Your task to perform on an android device: open app "Adobe Acrobat Reader: Edit PDF" Image 0: 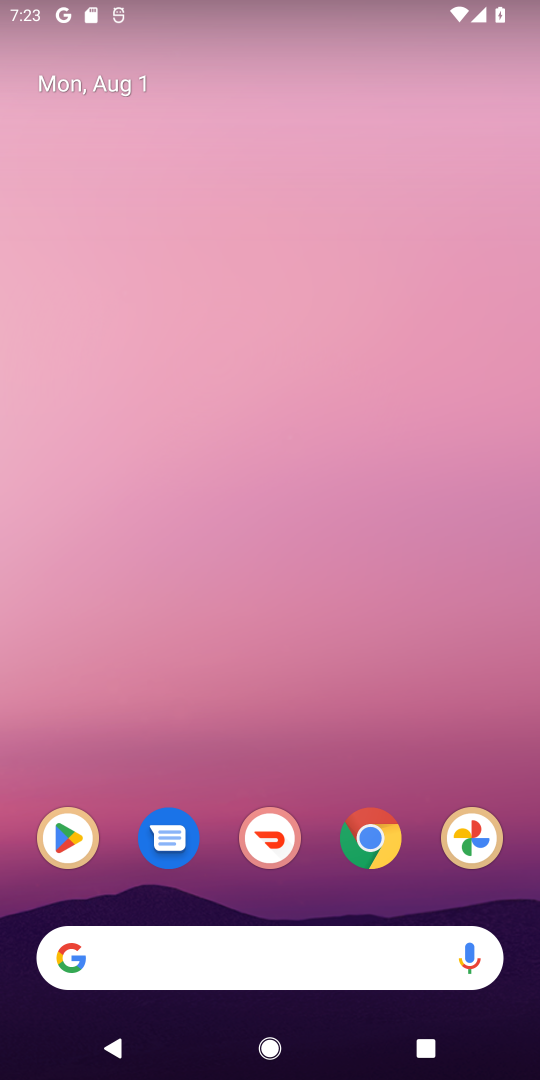
Step 0: drag from (207, 960) to (143, 25)
Your task to perform on an android device: open app "Adobe Acrobat Reader: Edit PDF" Image 1: 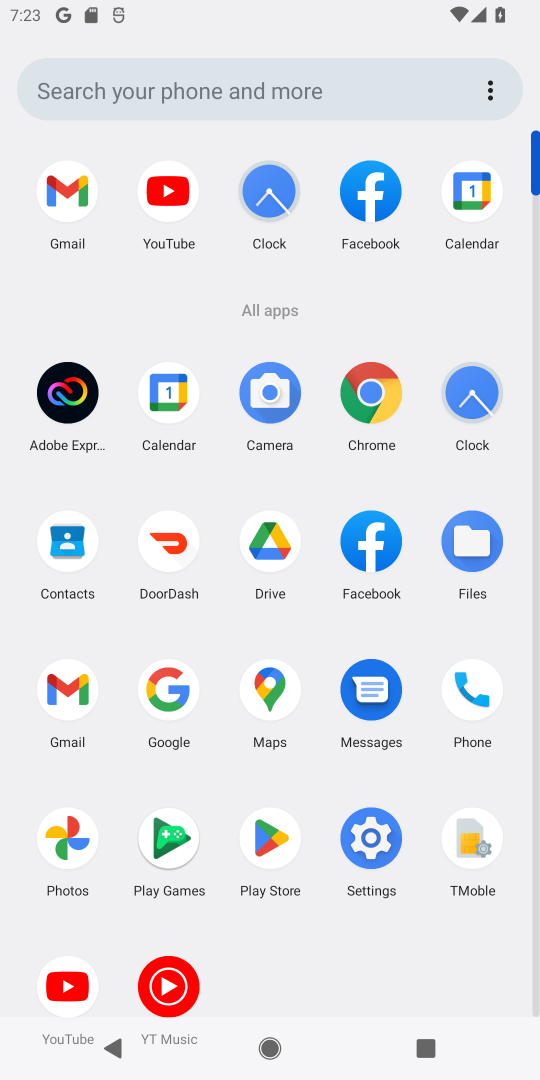
Step 1: click (258, 847)
Your task to perform on an android device: open app "Adobe Acrobat Reader: Edit PDF" Image 2: 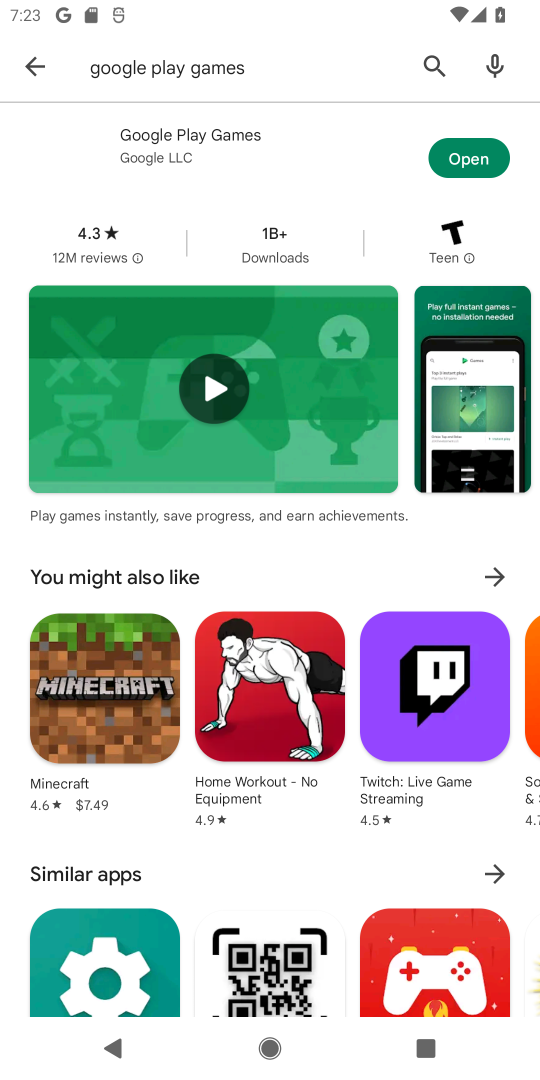
Step 2: click (32, 83)
Your task to perform on an android device: open app "Adobe Acrobat Reader: Edit PDF" Image 3: 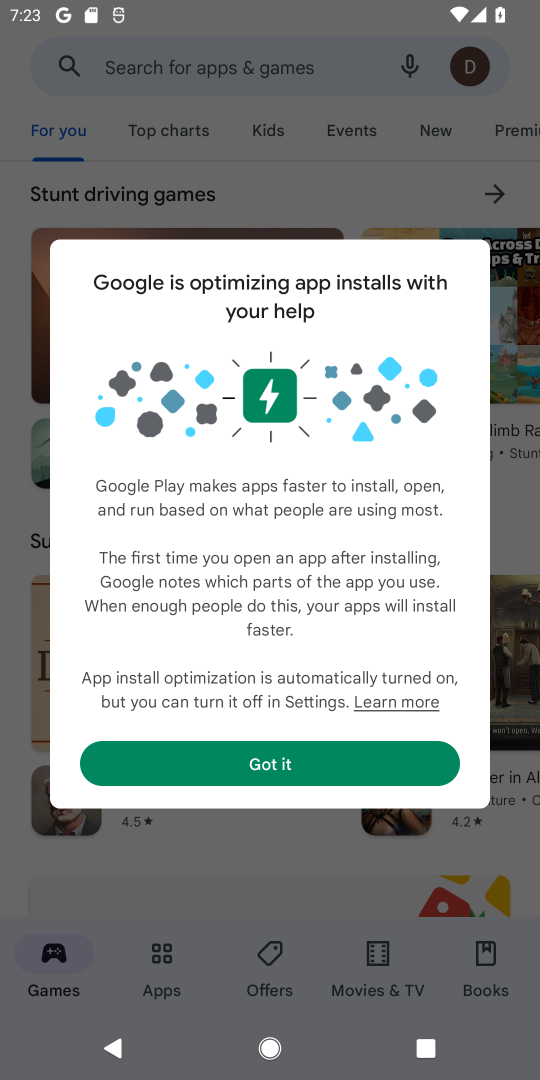
Step 3: click (324, 770)
Your task to perform on an android device: open app "Adobe Acrobat Reader: Edit PDF" Image 4: 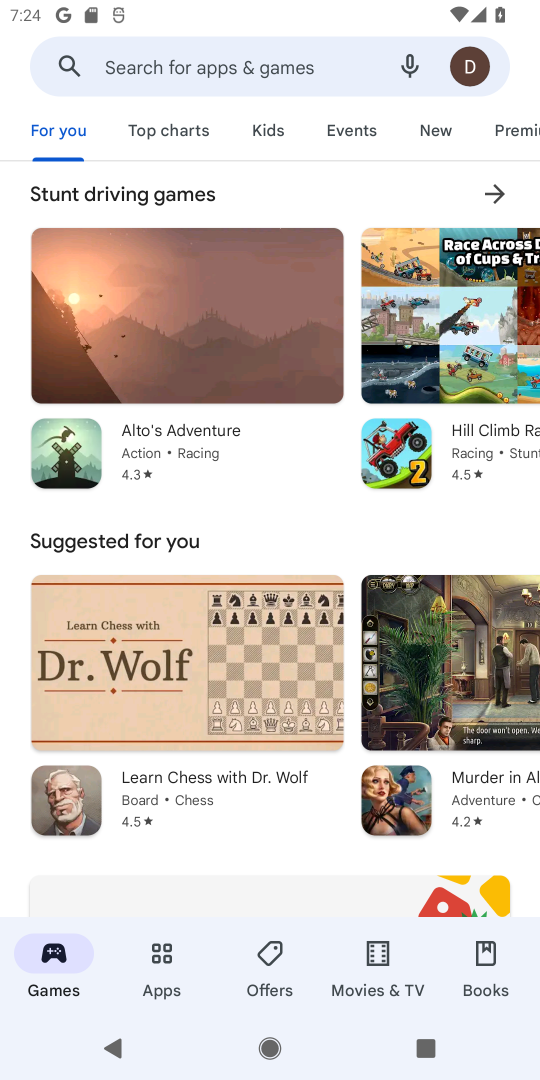
Step 4: click (205, 74)
Your task to perform on an android device: open app "Adobe Acrobat Reader: Edit PDF" Image 5: 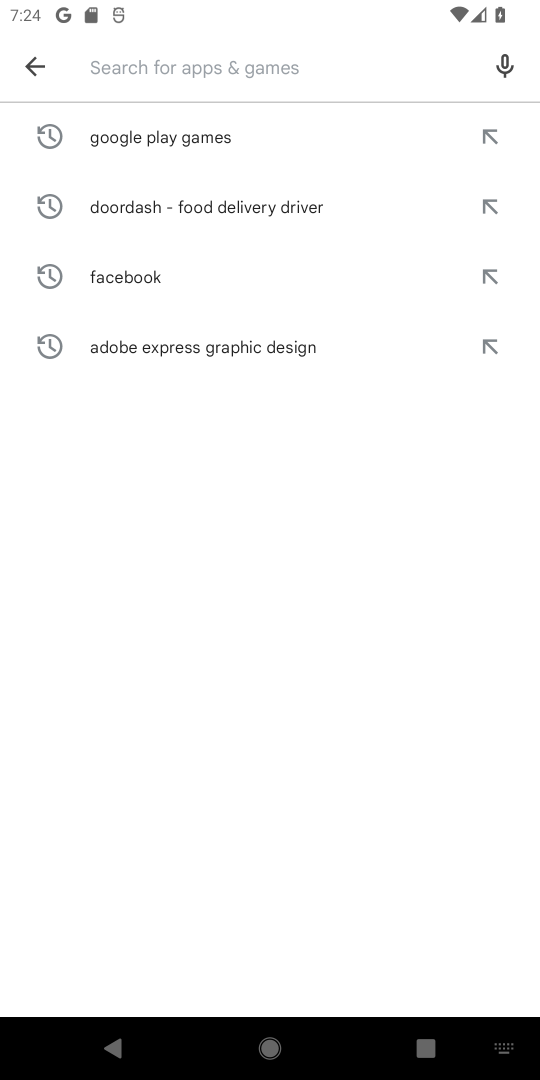
Step 5: type "Adobe Acrobat Reader"
Your task to perform on an android device: open app "Adobe Acrobat Reader: Edit PDF" Image 6: 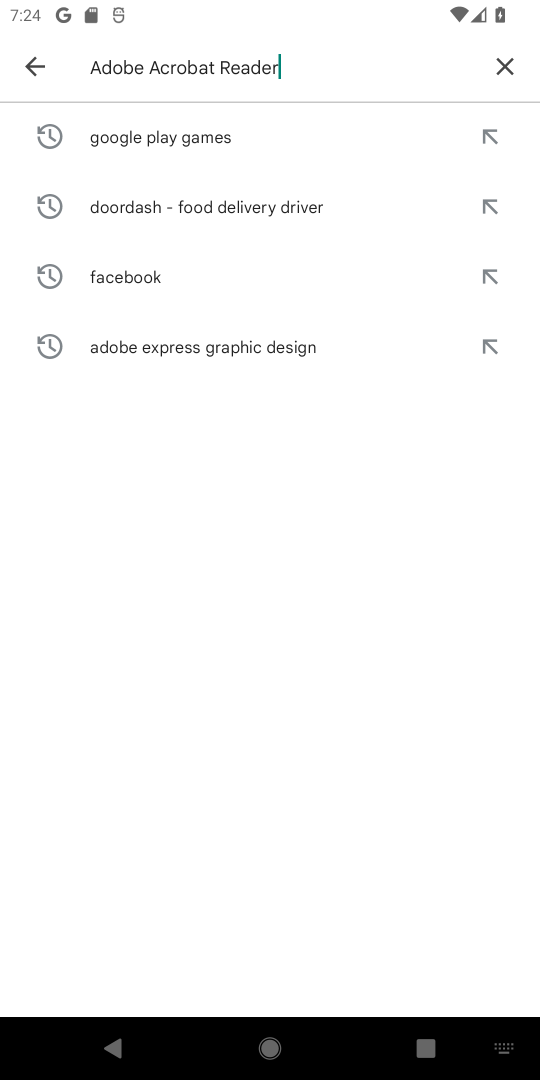
Step 6: type ""
Your task to perform on an android device: open app "Adobe Acrobat Reader: Edit PDF" Image 7: 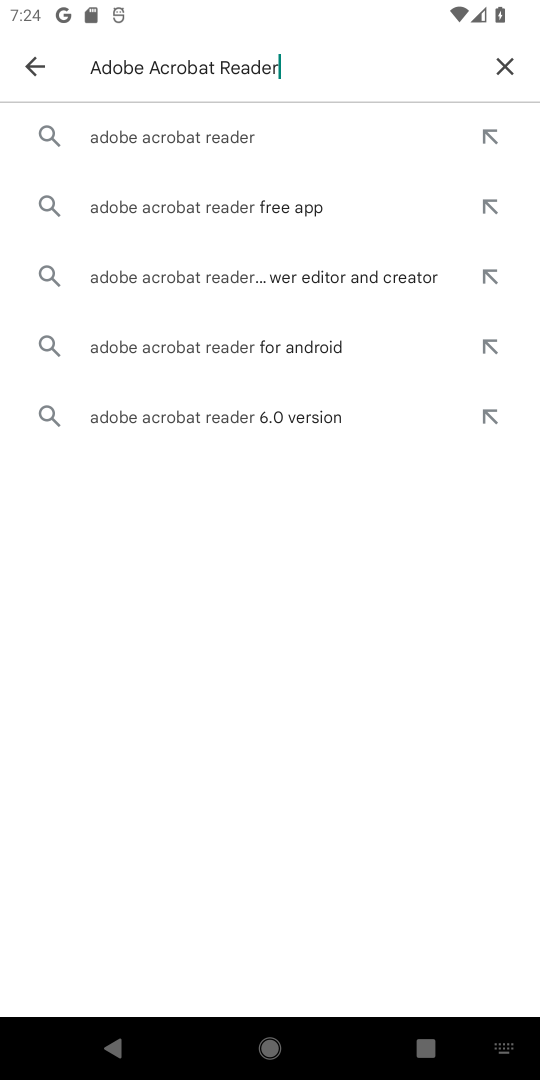
Step 7: click (138, 133)
Your task to perform on an android device: open app "Adobe Acrobat Reader: Edit PDF" Image 8: 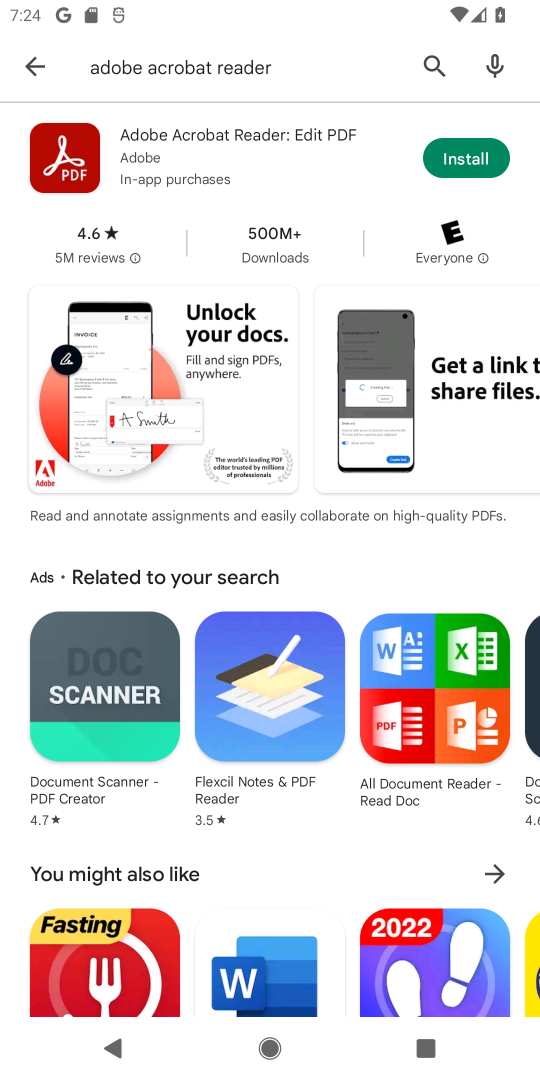
Step 8: task complete